Your task to perform on an android device: uninstall "HBO Max: Stream TV & Movies" Image 0: 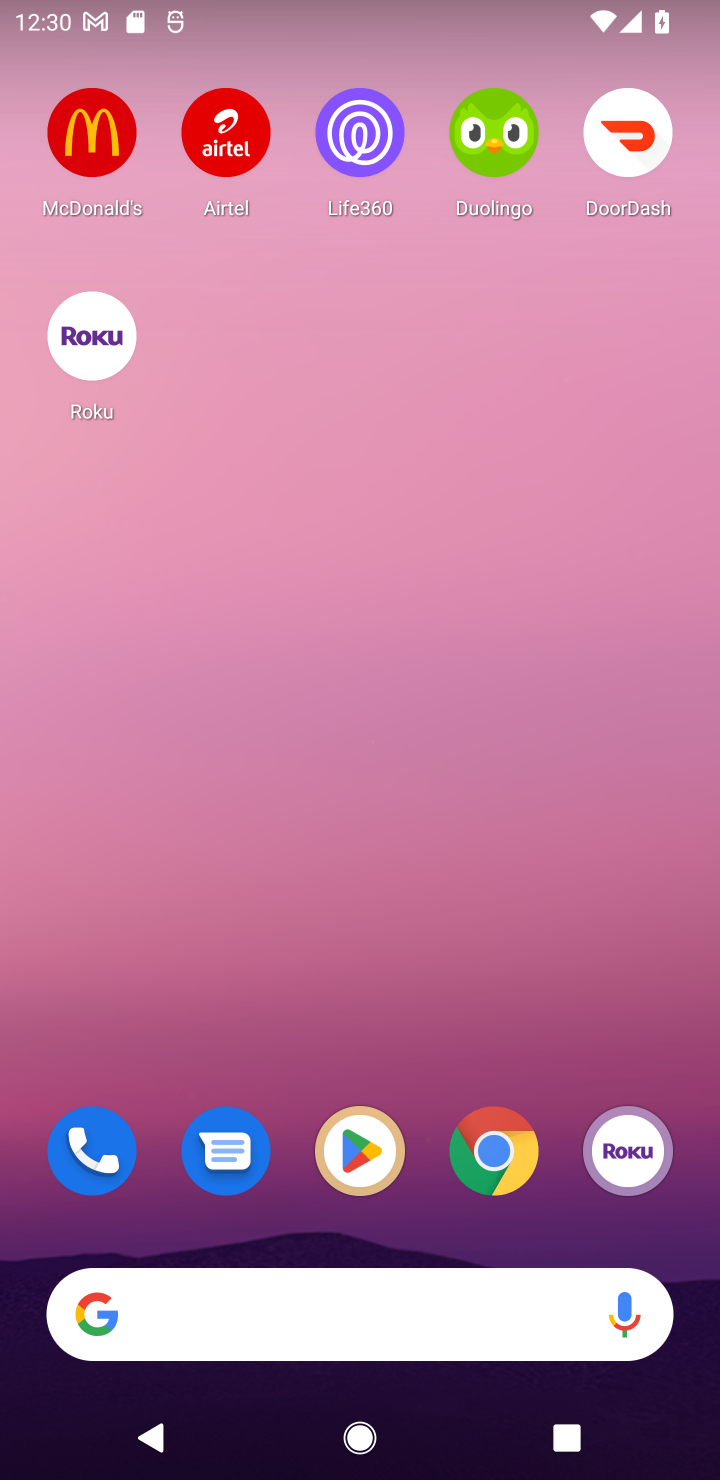
Step 0: click (346, 1170)
Your task to perform on an android device: uninstall "HBO Max: Stream TV & Movies" Image 1: 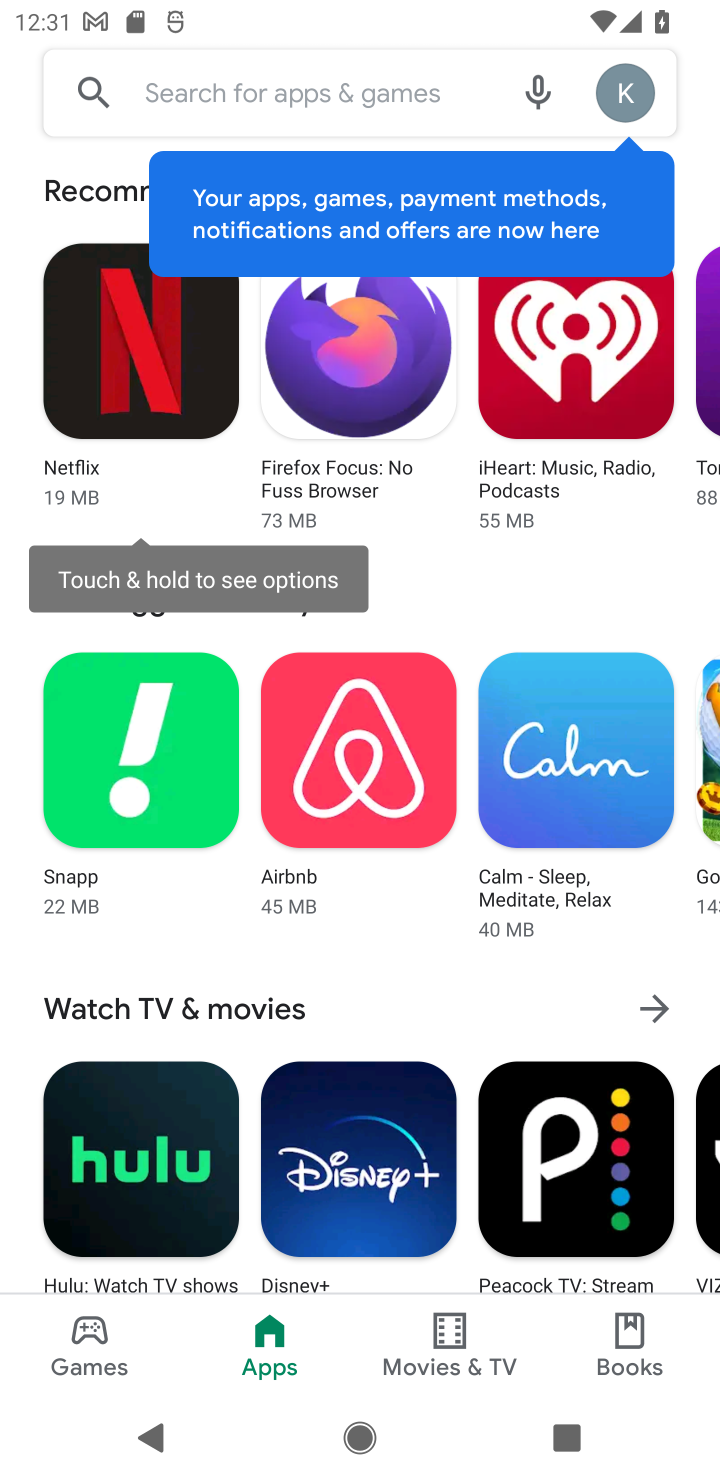
Step 1: click (355, 83)
Your task to perform on an android device: uninstall "HBO Max: Stream TV & Movies" Image 2: 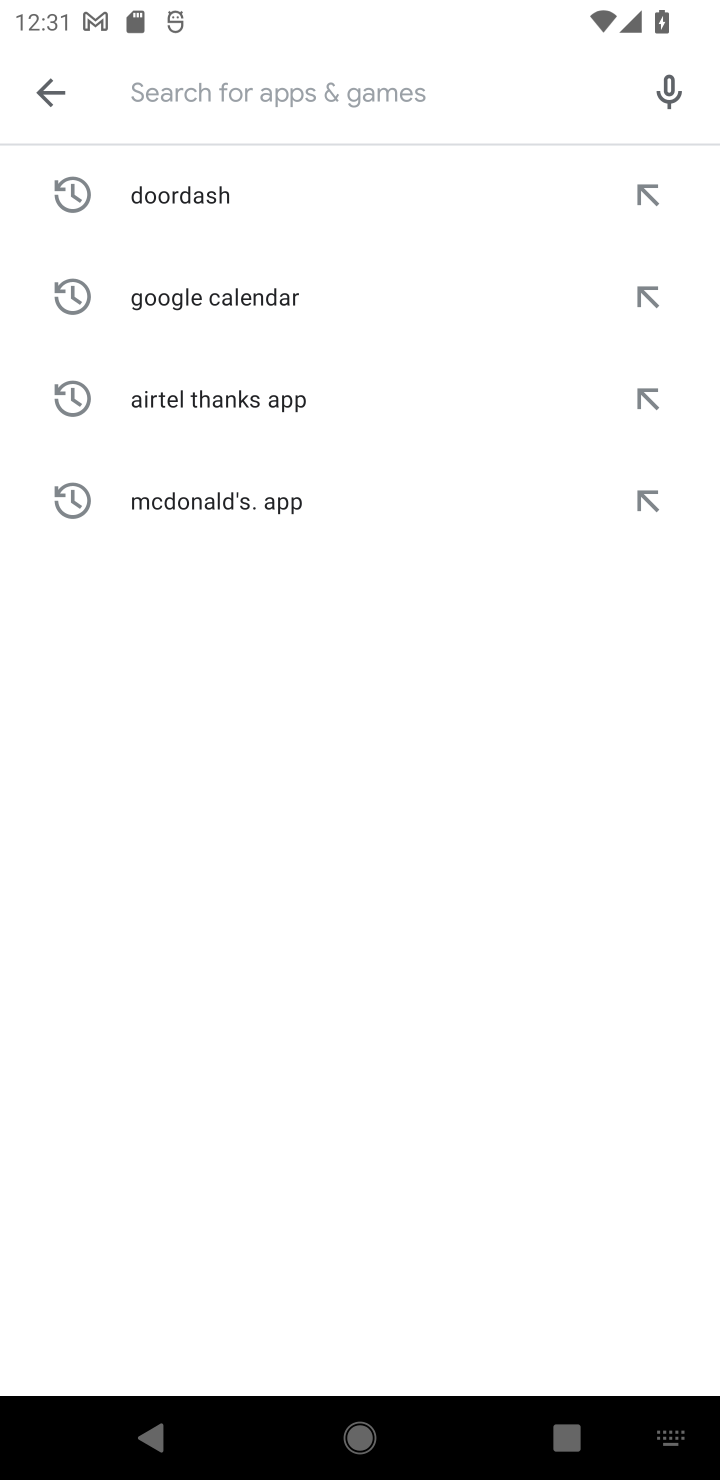
Step 2: type "HBO Max: Stream TV & Movies"
Your task to perform on an android device: uninstall "HBO Max: Stream TV & Movies" Image 3: 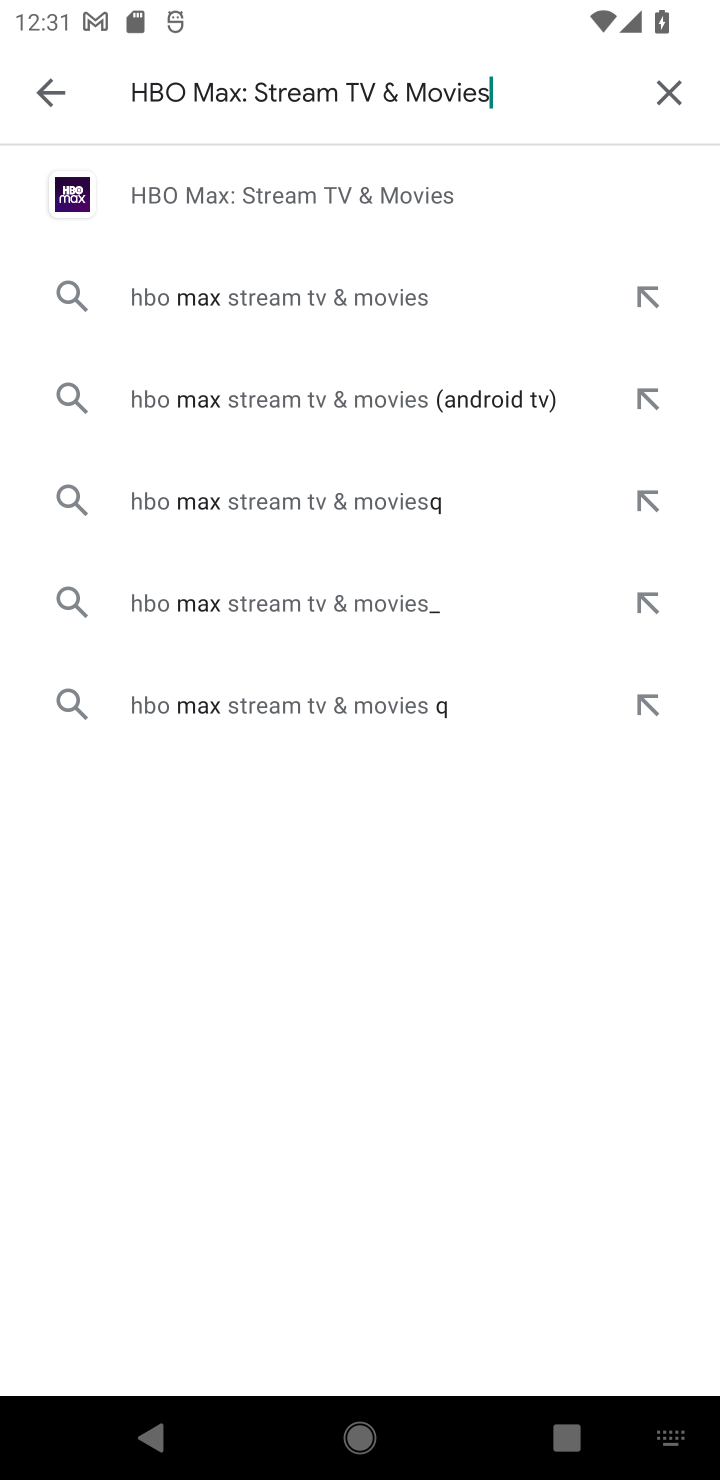
Step 3: click (220, 196)
Your task to perform on an android device: uninstall "HBO Max: Stream TV & Movies" Image 4: 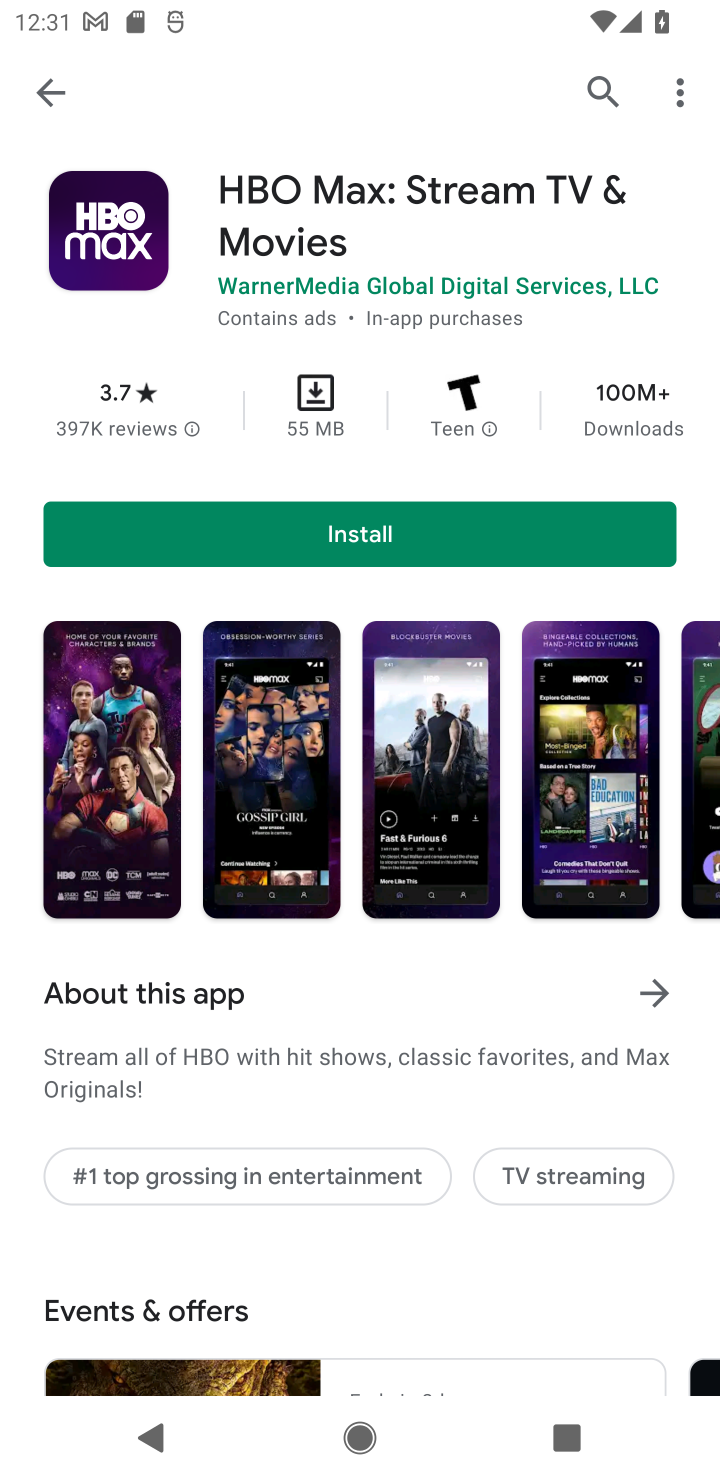
Step 4: task complete